Your task to perform on an android device: Go to notification settings Image 0: 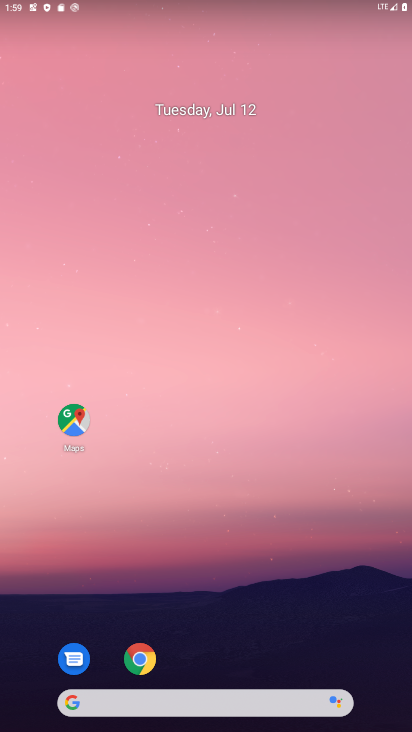
Step 0: drag from (229, 649) to (204, 199)
Your task to perform on an android device: Go to notification settings Image 1: 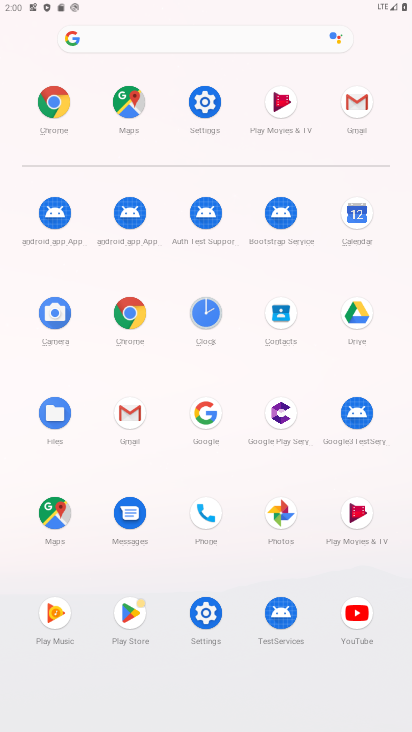
Step 1: click (209, 99)
Your task to perform on an android device: Go to notification settings Image 2: 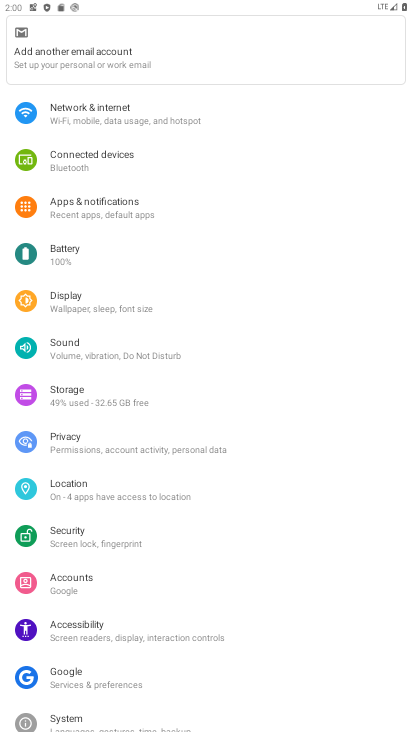
Step 2: click (97, 202)
Your task to perform on an android device: Go to notification settings Image 3: 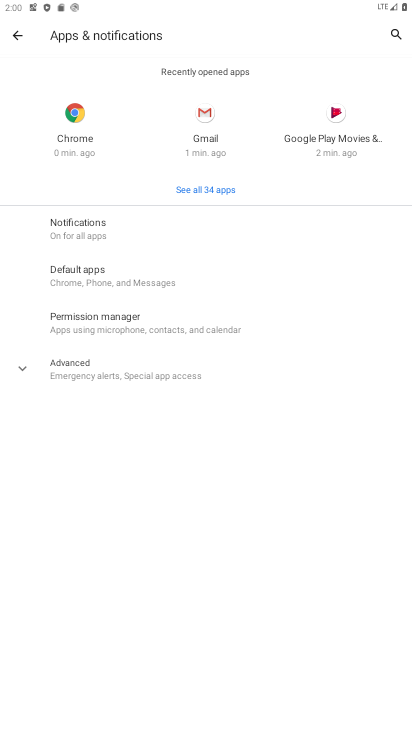
Step 3: click (81, 228)
Your task to perform on an android device: Go to notification settings Image 4: 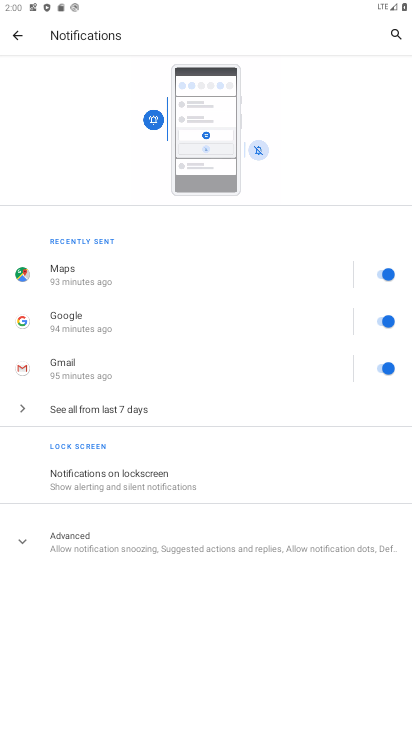
Step 4: task complete